Your task to perform on an android device: turn off notifications settings in the gmail app Image 0: 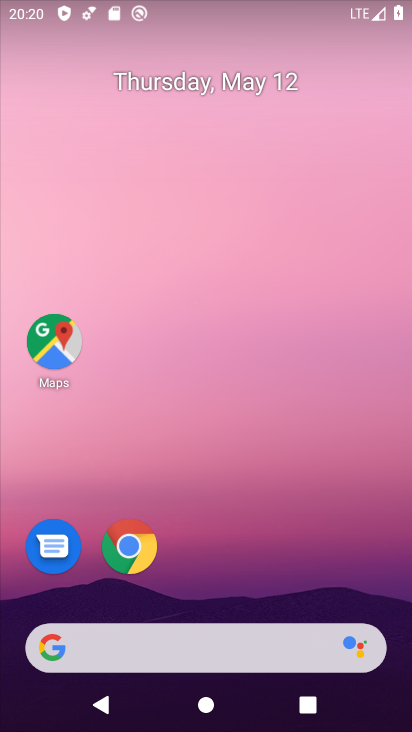
Step 0: drag from (211, 549) to (288, 100)
Your task to perform on an android device: turn off notifications settings in the gmail app Image 1: 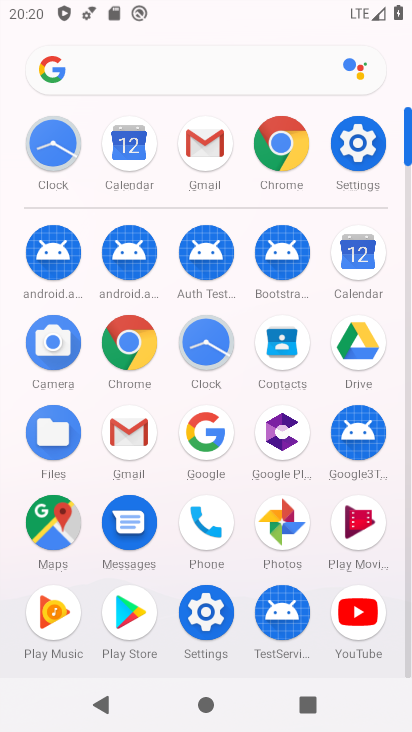
Step 1: click (200, 139)
Your task to perform on an android device: turn off notifications settings in the gmail app Image 2: 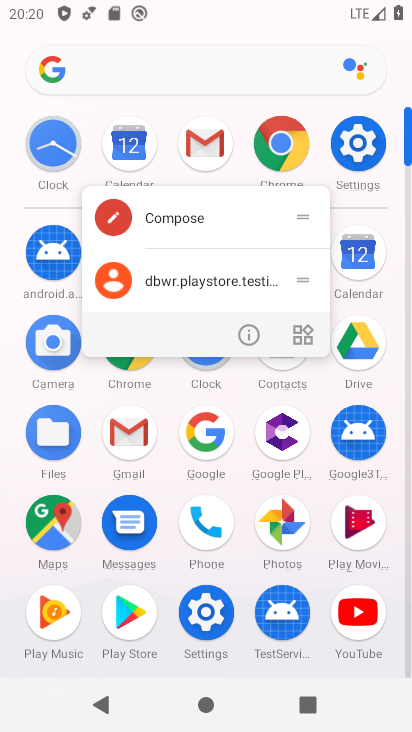
Step 2: click (244, 336)
Your task to perform on an android device: turn off notifications settings in the gmail app Image 3: 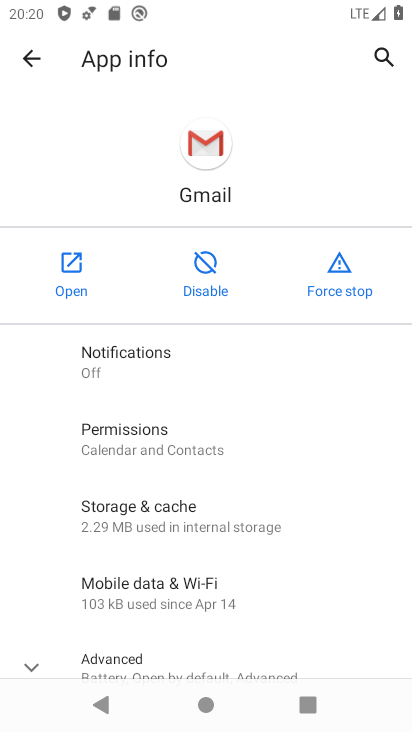
Step 3: click (125, 355)
Your task to perform on an android device: turn off notifications settings in the gmail app Image 4: 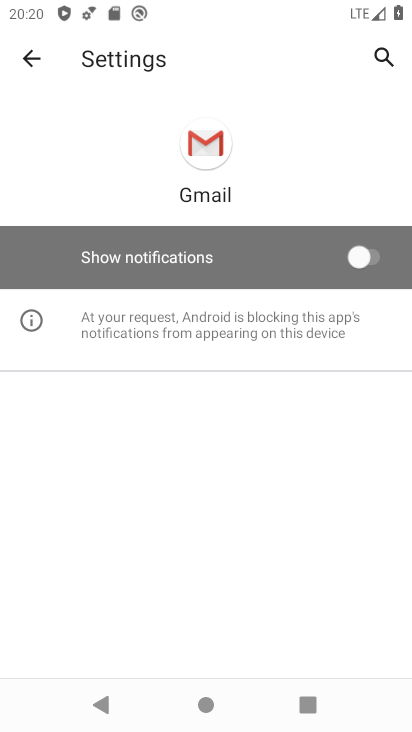
Step 4: task complete